Your task to perform on an android device: Do I have any events this weekend? Image 0: 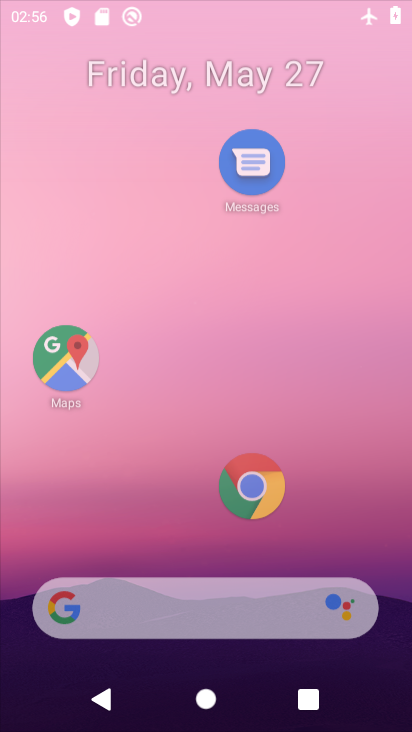
Step 0: drag from (365, 7) to (288, 539)
Your task to perform on an android device: Do I have any events this weekend? Image 1: 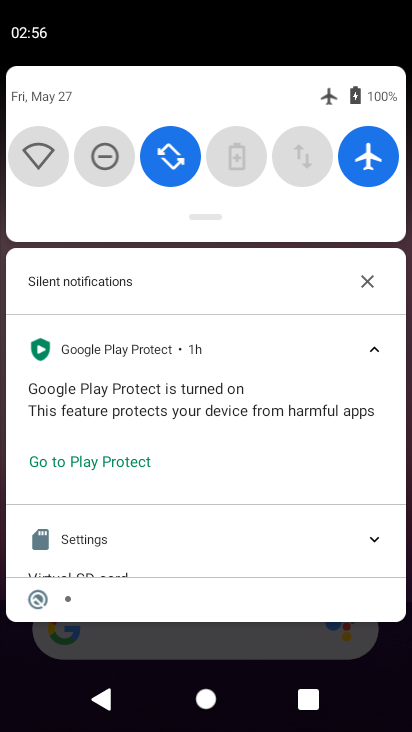
Step 1: click (373, 144)
Your task to perform on an android device: Do I have any events this weekend? Image 2: 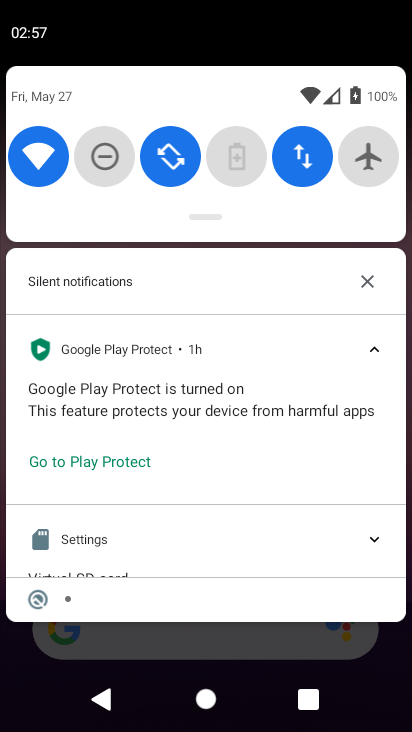
Step 2: press home button
Your task to perform on an android device: Do I have any events this weekend? Image 3: 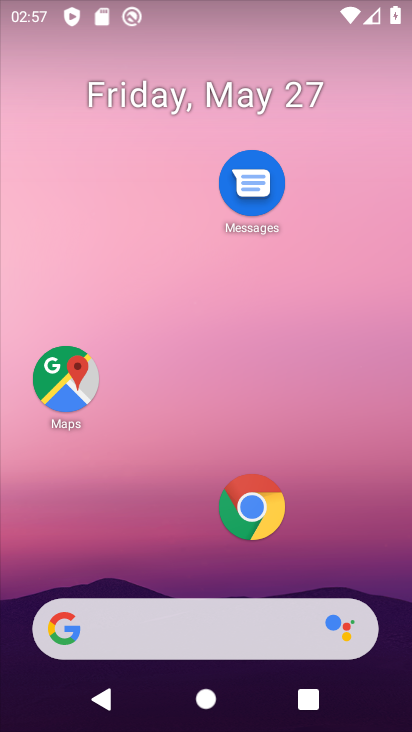
Step 3: drag from (168, 547) to (234, 208)
Your task to perform on an android device: Do I have any events this weekend? Image 4: 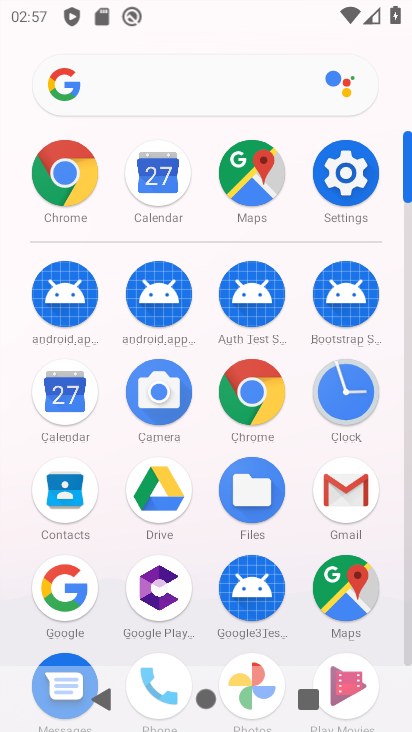
Step 4: click (163, 188)
Your task to perform on an android device: Do I have any events this weekend? Image 5: 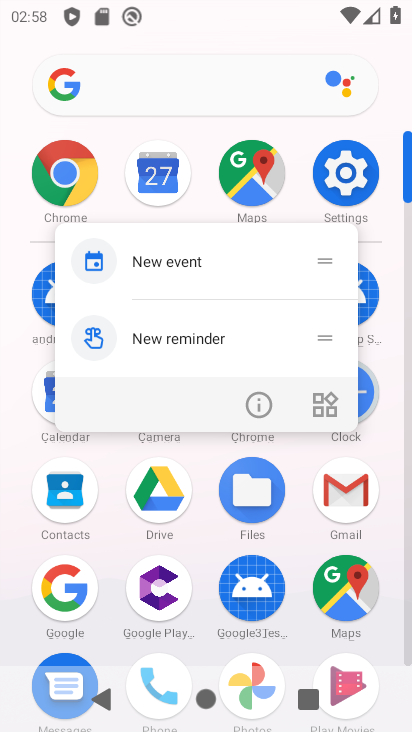
Step 5: click (276, 398)
Your task to perform on an android device: Do I have any events this weekend? Image 6: 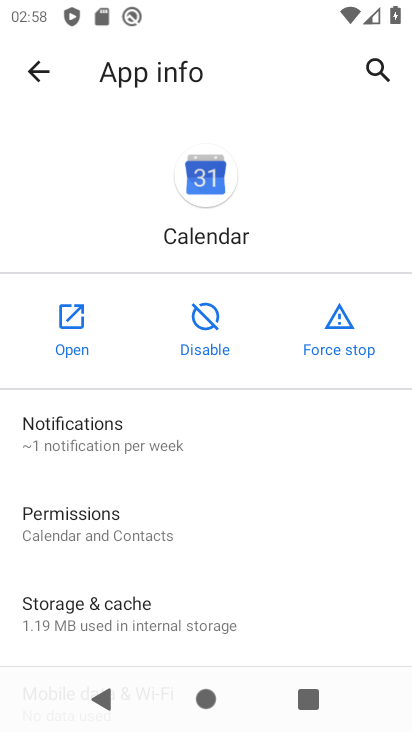
Step 6: click (76, 319)
Your task to perform on an android device: Do I have any events this weekend? Image 7: 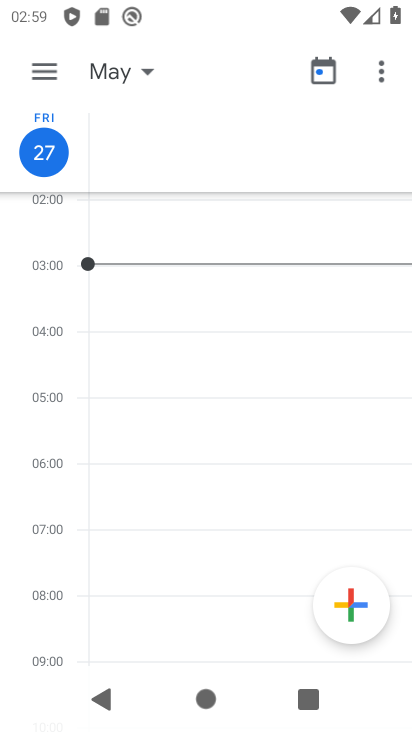
Step 7: click (153, 59)
Your task to perform on an android device: Do I have any events this weekend? Image 8: 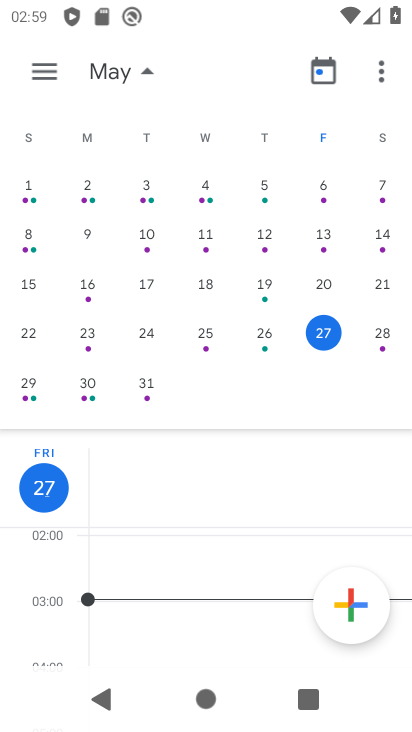
Step 8: click (93, 384)
Your task to perform on an android device: Do I have any events this weekend? Image 9: 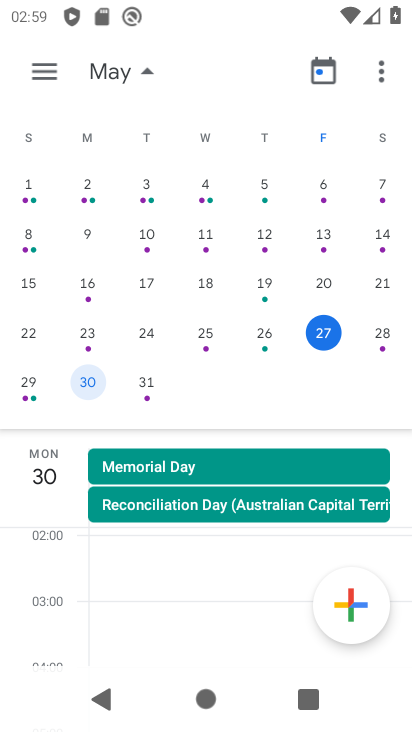
Step 9: task complete